Your task to perform on an android device: Open Yahoo.com Image 0: 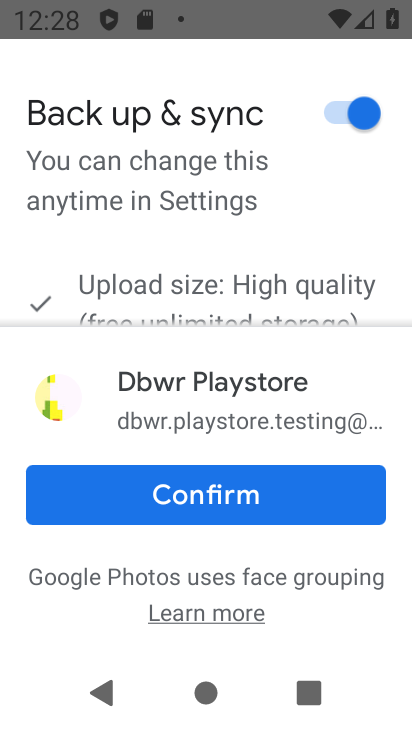
Step 0: press home button
Your task to perform on an android device: Open Yahoo.com Image 1: 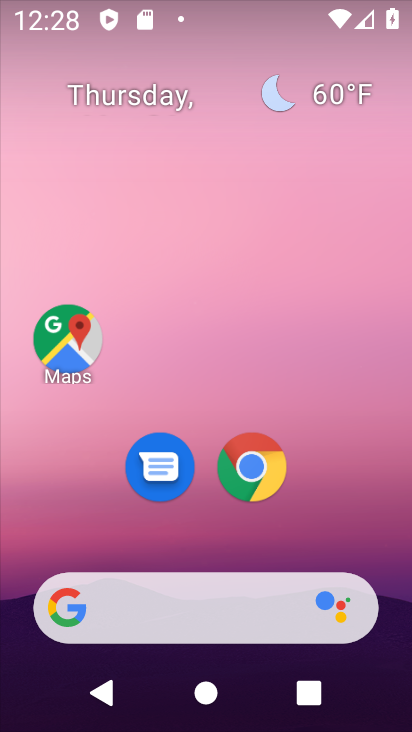
Step 1: click (253, 479)
Your task to perform on an android device: Open Yahoo.com Image 2: 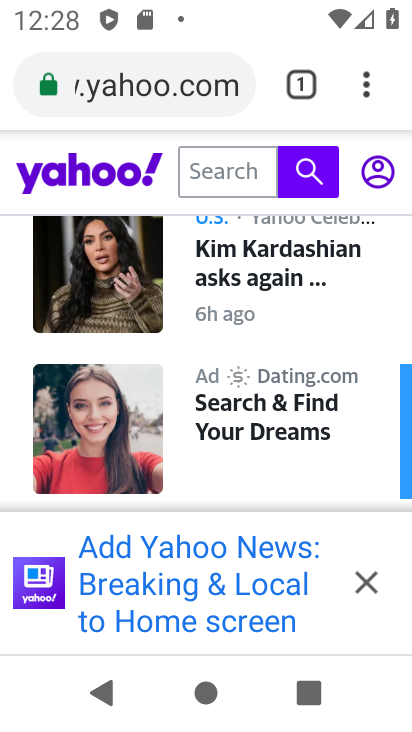
Step 2: click (172, 67)
Your task to perform on an android device: Open Yahoo.com Image 3: 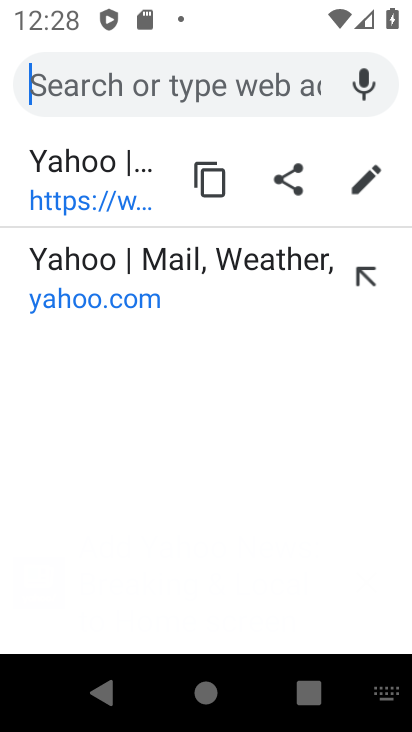
Step 3: type "yahoo.com"
Your task to perform on an android device: Open Yahoo.com Image 4: 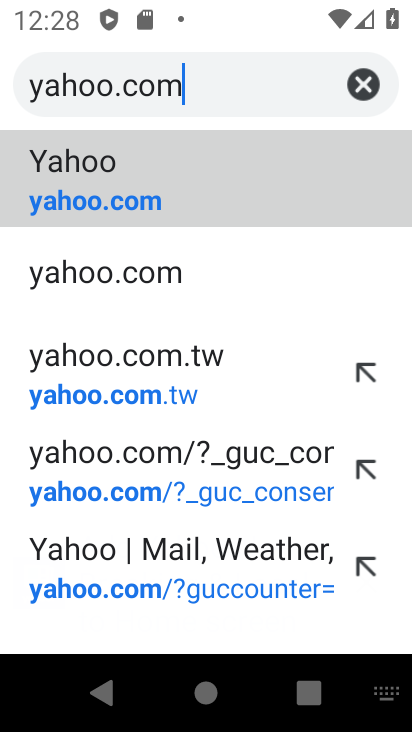
Step 4: click (133, 282)
Your task to perform on an android device: Open Yahoo.com Image 5: 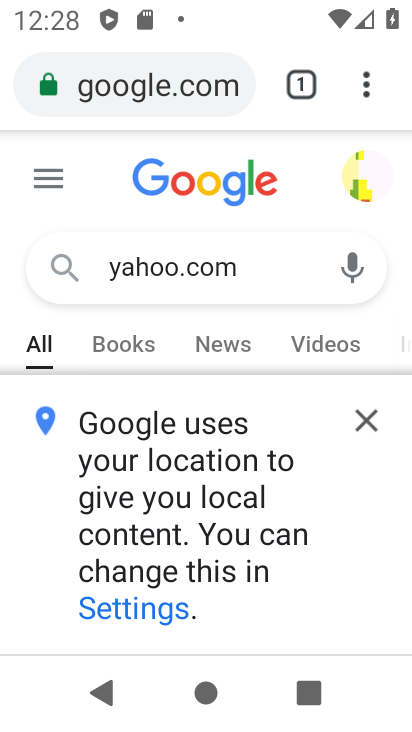
Step 5: click (352, 426)
Your task to perform on an android device: Open Yahoo.com Image 6: 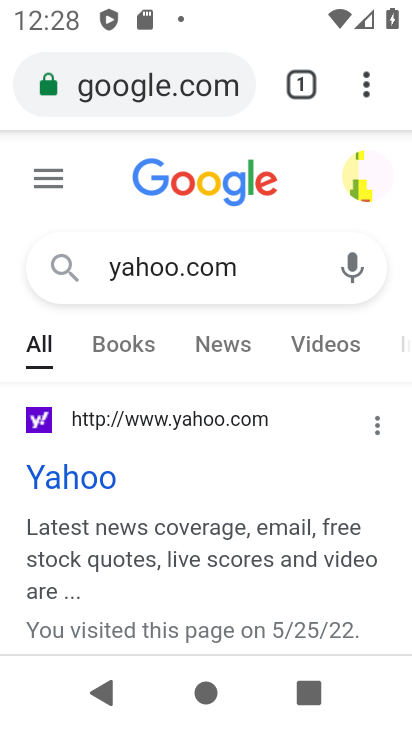
Step 6: task complete